Your task to perform on an android device: open app "Google Duo" (install if not already installed) Image 0: 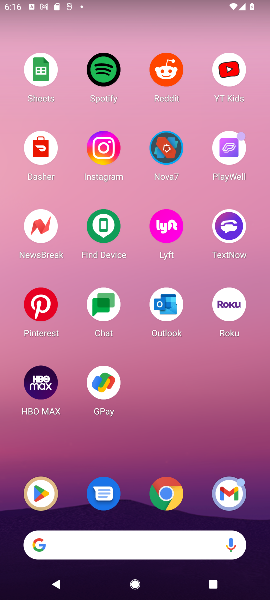
Step 0: drag from (161, 596) to (130, 121)
Your task to perform on an android device: open app "Google Duo" (install if not already installed) Image 1: 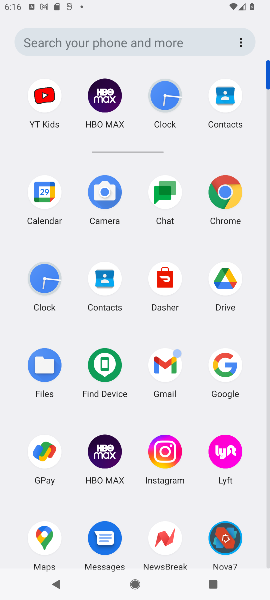
Step 1: drag from (138, 518) to (138, 214)
Your task to perform on an android device: open app "Google Duo" (install if not already installed) Image 2: 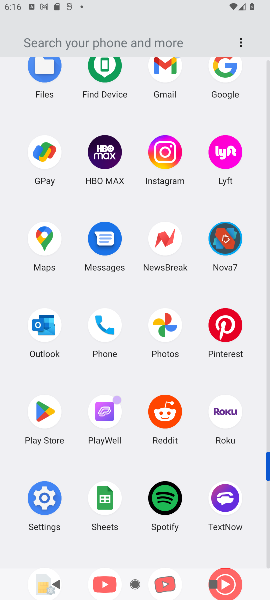
Step 2: drag from (123, 553) to (131, 203)
Your task to perform on an android device: open app "Google Duo" (install if not already installed) Image 3: 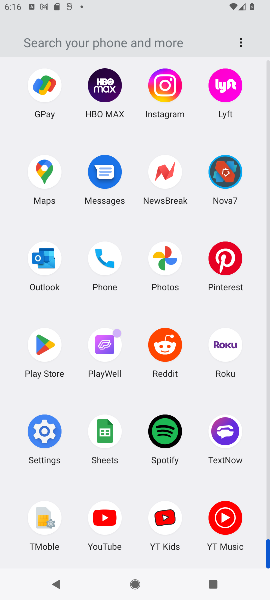
Step 3: click (46, 345)
Your task to perform on an android device: open app "Google Duo" (install if not already installed) Image 4: 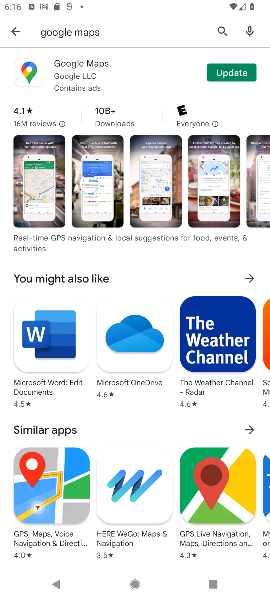
Step 4: click (223, 26)
Your task to perform on an android device: open app "Google Duo" (install if not already installed) Image 5: 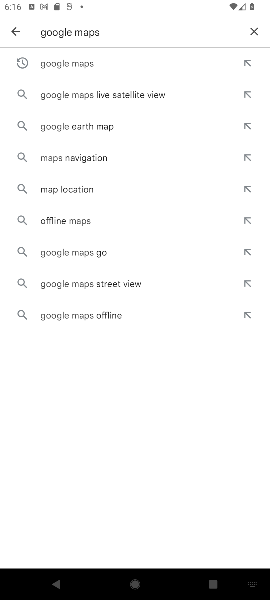
Step 5: click (253, 31)
Your task to perform on an android device: open app "Google Duo" (install if not already installed) Image 6: 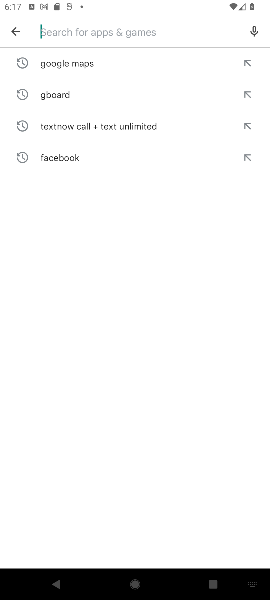
Step 6: type "Google Duo"
Your task to perform on an android device: open app "Google Duo" (install if not already installed) Image 7: 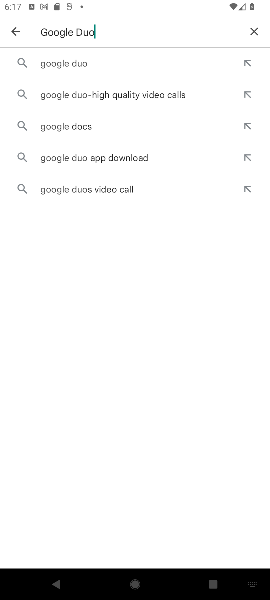
Step 7: click (60, 64)
Your task to perform on an android device: open app "Google Duo" (install if not already installed) Image 8: 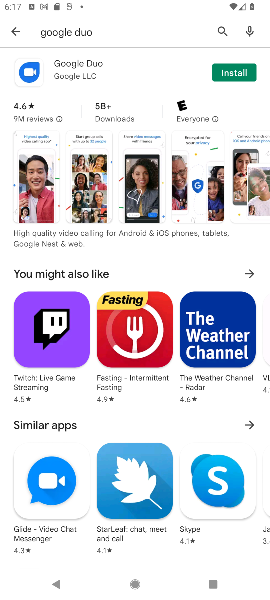
Step 8: click (232, 71)
Your task to perform on an android device: open app "Google Duo" (install if not already installed) Image 9: 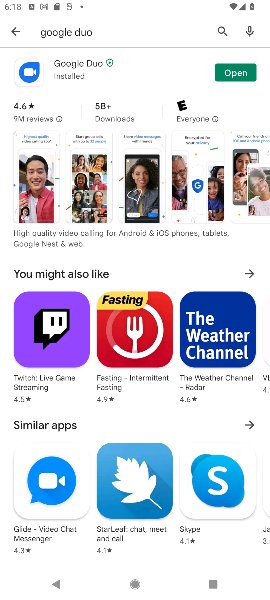
Step 9: task complete